Your task to perform on an android device: Install the Twitter app Image 0: 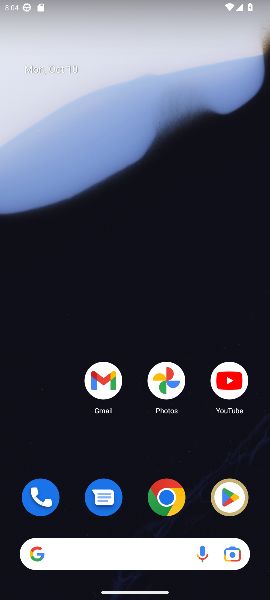
Step 0: drag from (95, 497) to (99, 160)
Your task to perform on an android device: Install the Twitter app Image 1: 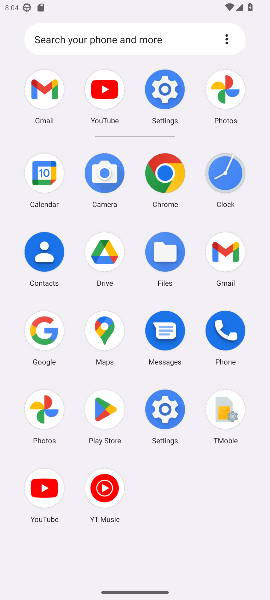
Step 1: click (34, 322)
Your task to perform on an android device: Install the Twitter app Image 2: 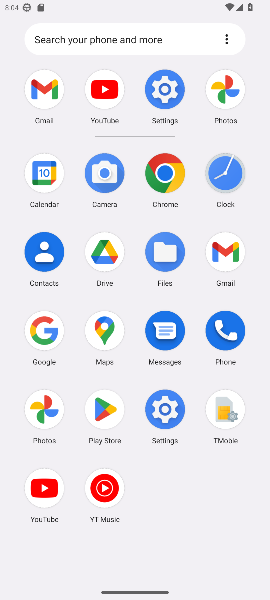
Step 2: click (34, 322)
Your task to perform on an android device: Install the Twitter app Image 3: 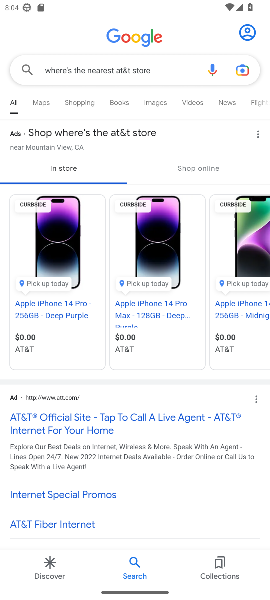
Step 3: press home button
Your task to perform on an android device: Install the Twitter app Image 4: 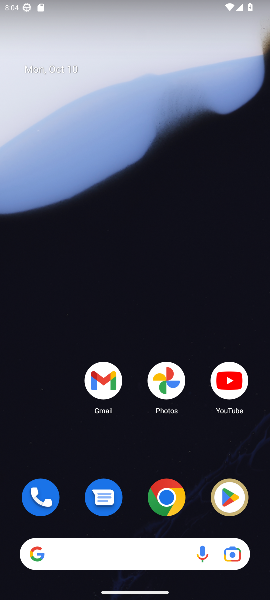
Step 4: click (228, 500)
Your task to perform on an android device: Install the Twitter app Image 5: 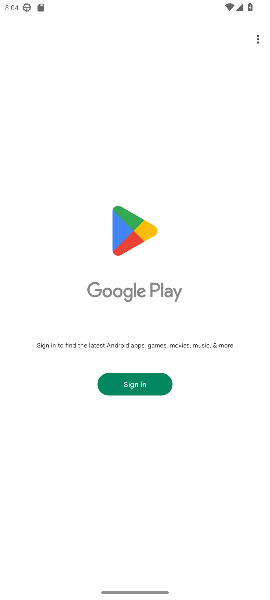
Step 5: click (125, 374)
Your task to perform on an android device: Install the Twitter app Image 6: 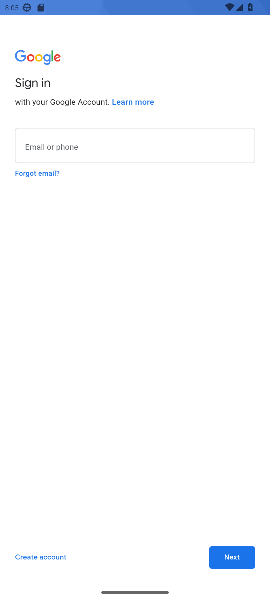
Step 6: task complete